Your task to perform on an android device: see sites visited before in the chrome app Image 0: 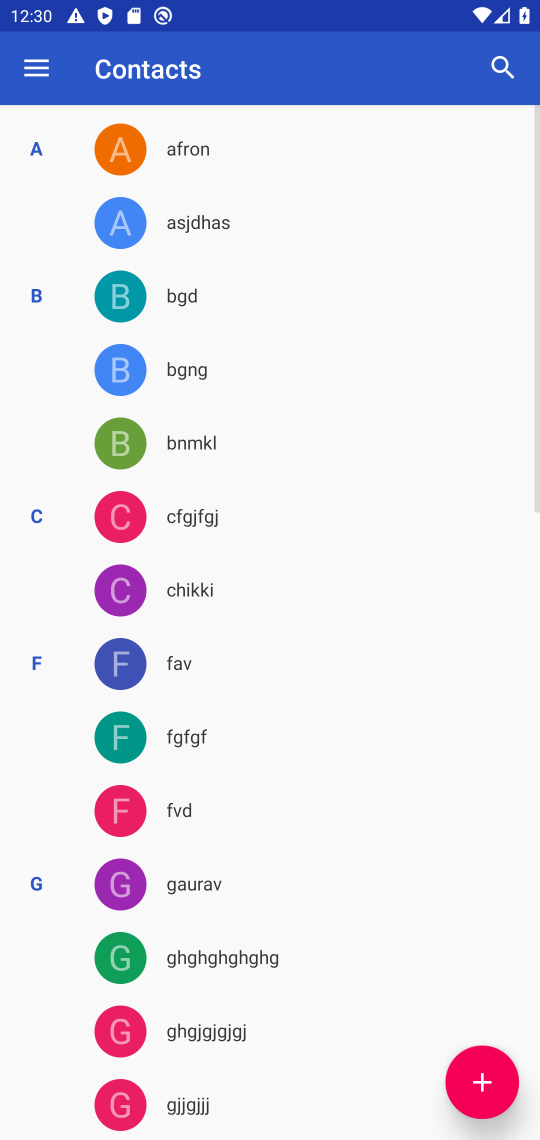
Step 0: press home button
Your task to perform on an android device: see sites visited before in the chrome app Image 1: 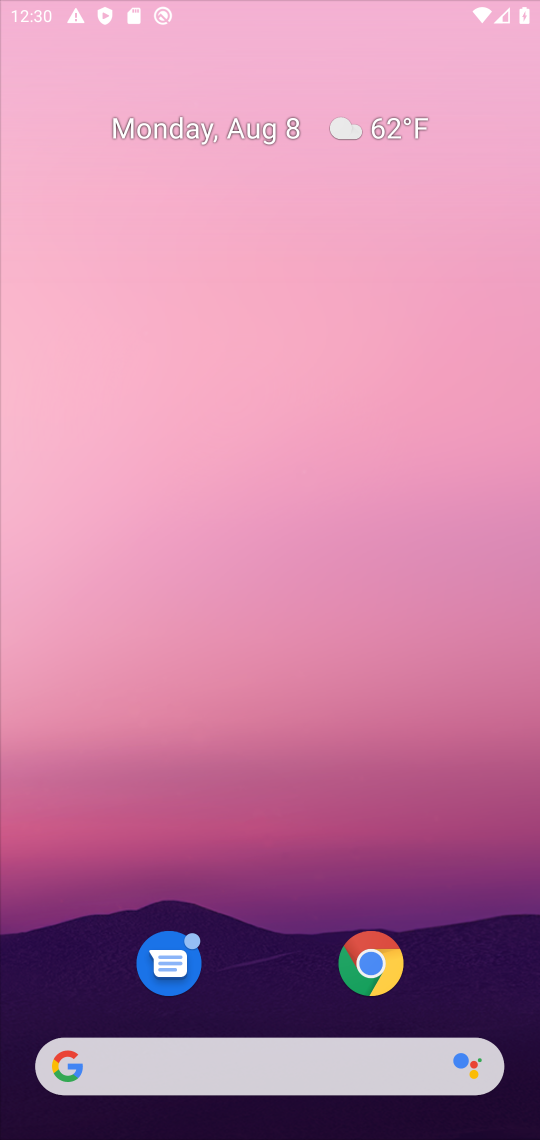
Step 1: drag from (396, 625) to (18, 79)
Your task to perform on an android device: see sites visited before in the chrome app Image 2: 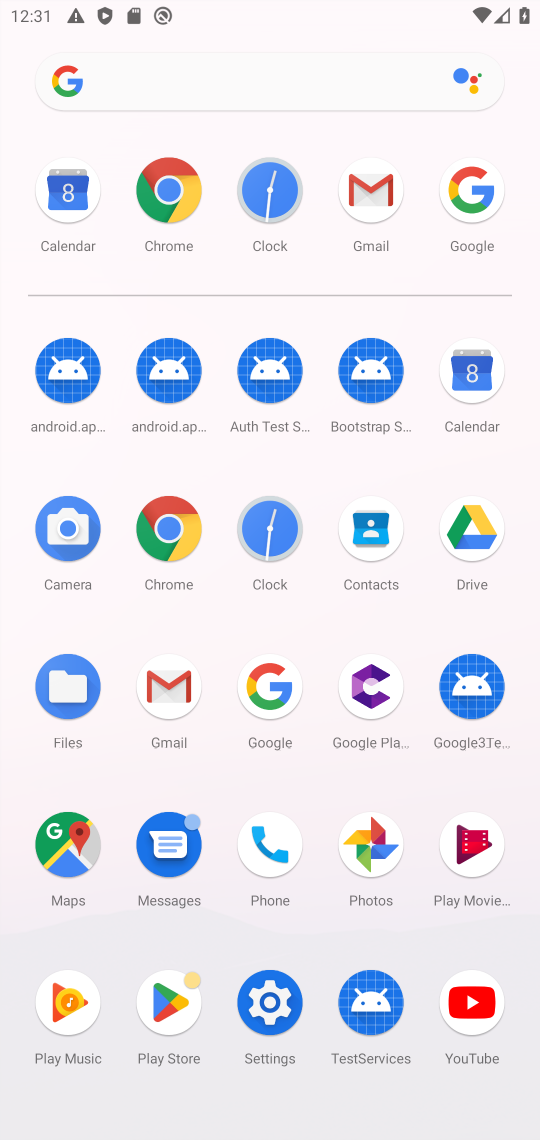
Step 2: click (158, 537)
Your task to perform on an android device: see sites visited before in the chrome app Image 3: 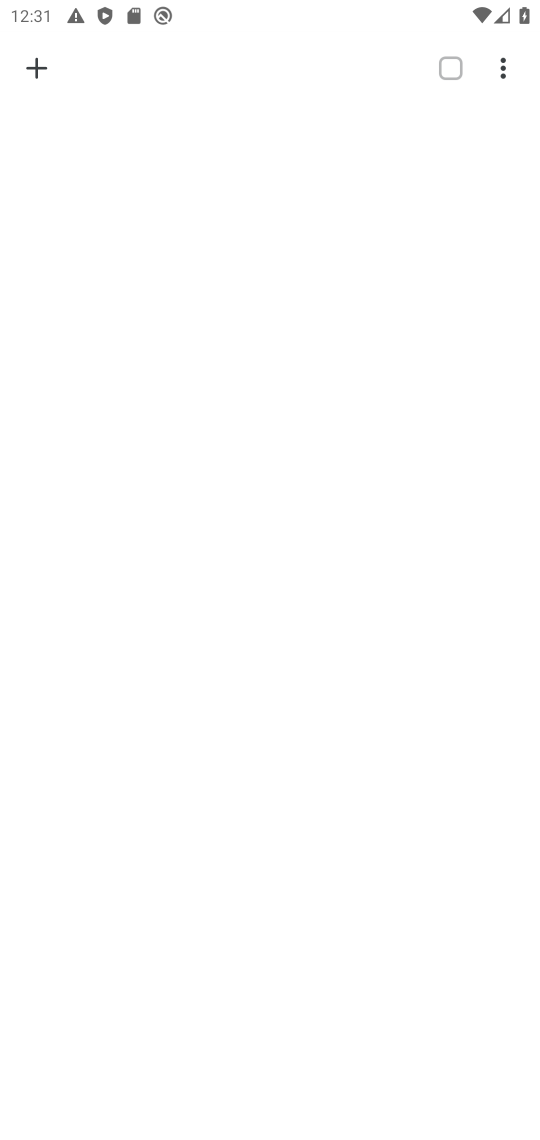
Step 3: task complete